Your task to perform on an android device: Search for seafood restaurants on Google Maps Image 0: 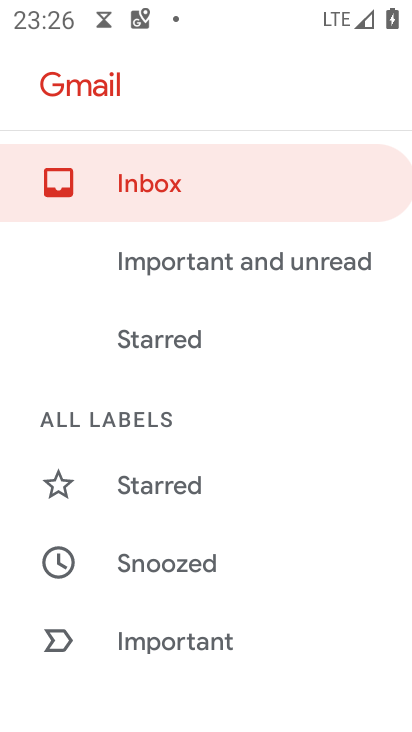
Step 0: press home button
Your task to perform on an android device: Search for seafood restaurants on Google Maps Image 1: 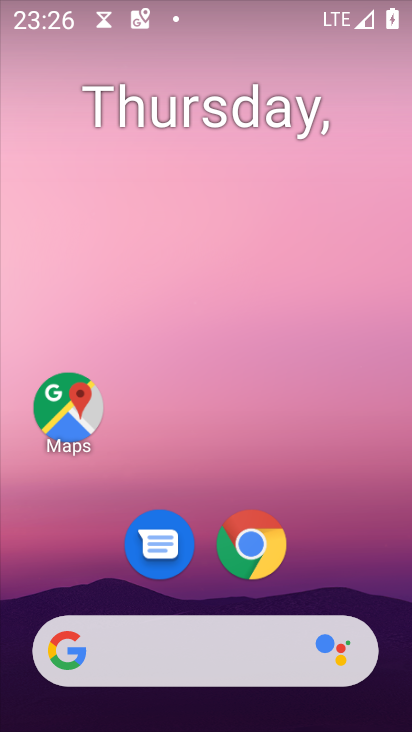
Step 1: click (77, 409)
Your task to perform on an android device: Search for seafood restaurants on Google Maps Image 2: 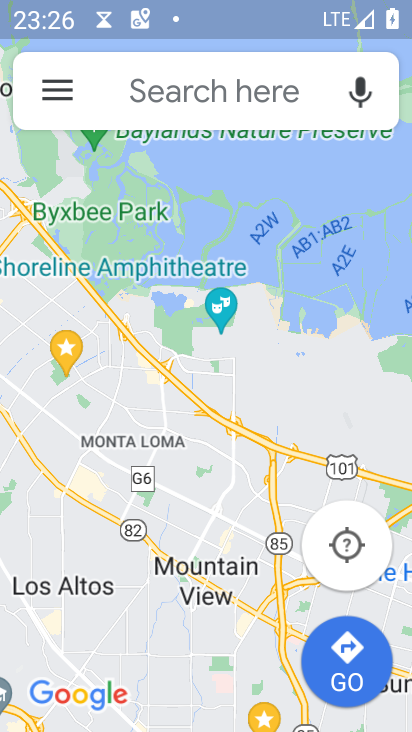
Step 2: click (201, 80)
Your task to perform on an android device: Search for seafood restaurants on Google Maps Image 3: 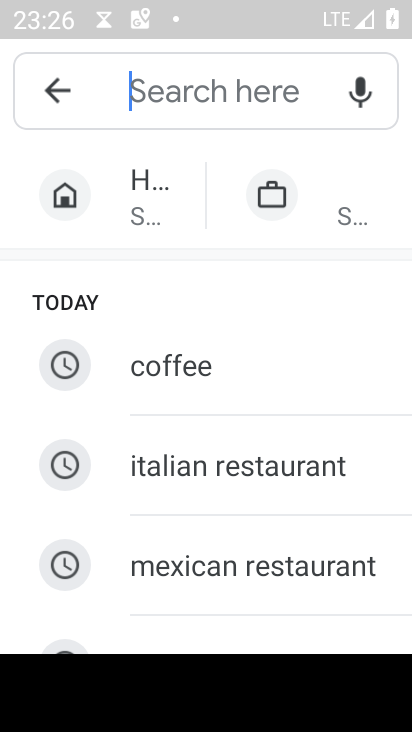
Step 3: drag from (182, 568) to (242, 256)
Your task to perform on an android device: Search for seafood restaurants on Google Maps Image 4: 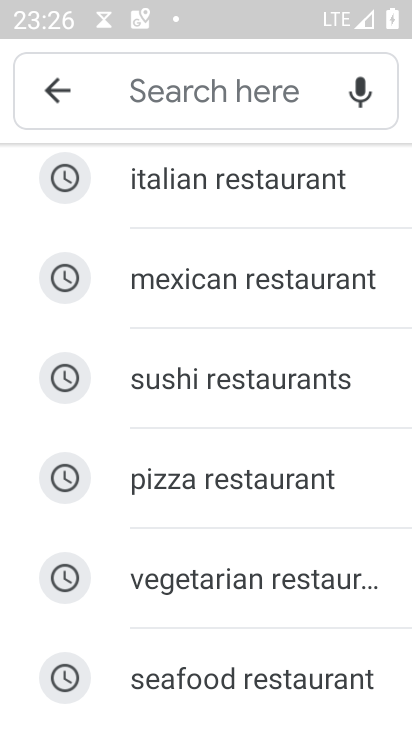
Step 4: click (226, 684)
Your task to perform on an android device: Search for seafood restaurants on Google Maps Image 5: 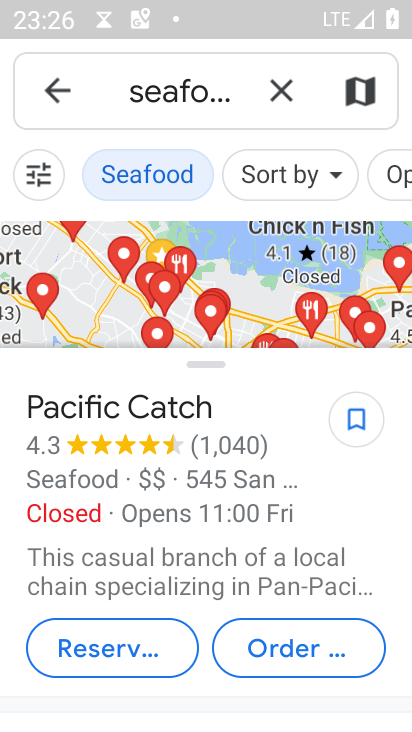
Step 5: task complete